Your task to perform on an android device: Open accessibility settings Image 0: 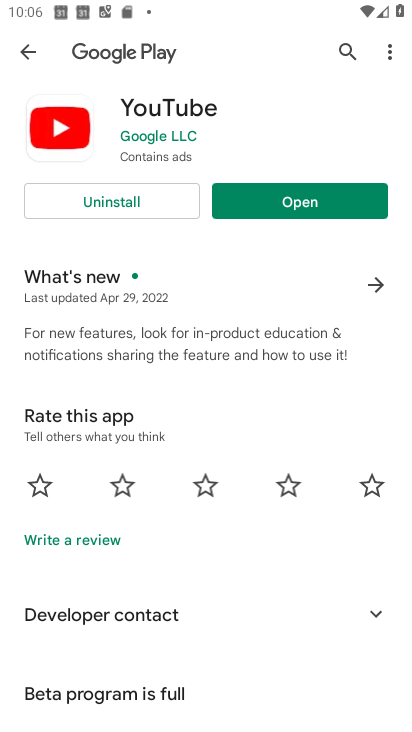
Step 0: press home button
Your task to perform on an android device: Open accessibility settings Image 1: 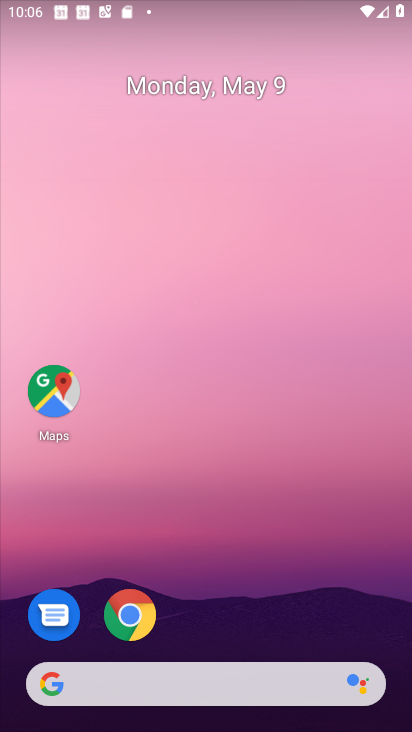
Step 1: drag from (279, 710) to (316, 193)
Your task to perform on an android device: Open accessibility settings Image 2: 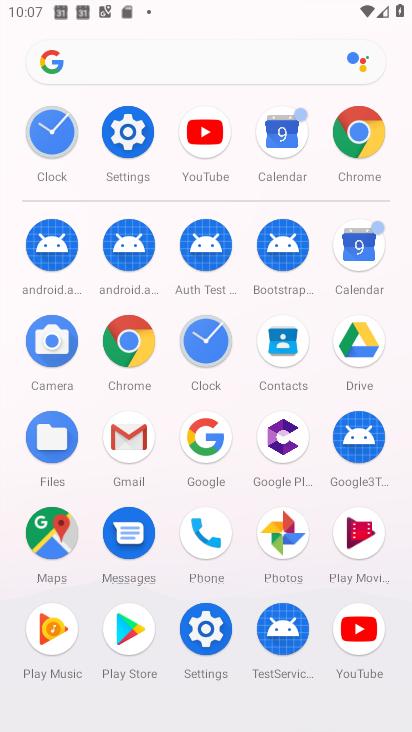
Step 2: click (118, 152)
Your task to perform on an android device: Open accessibility settings Image 3: 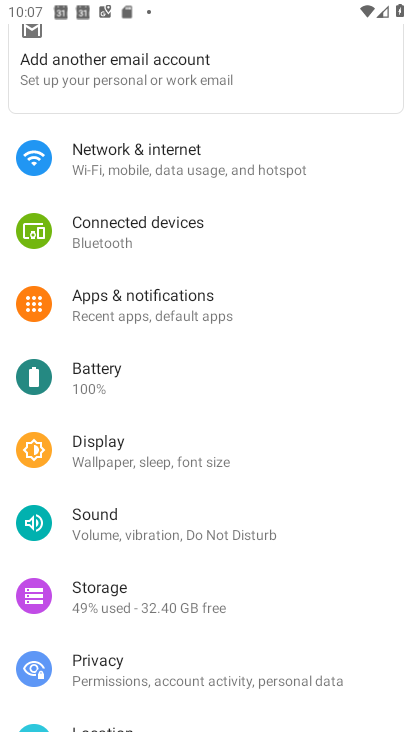
Step 3: drag from (126, 275) to (163, 499)
Your task to perform on an android device: Open accessibility settings Image 4: 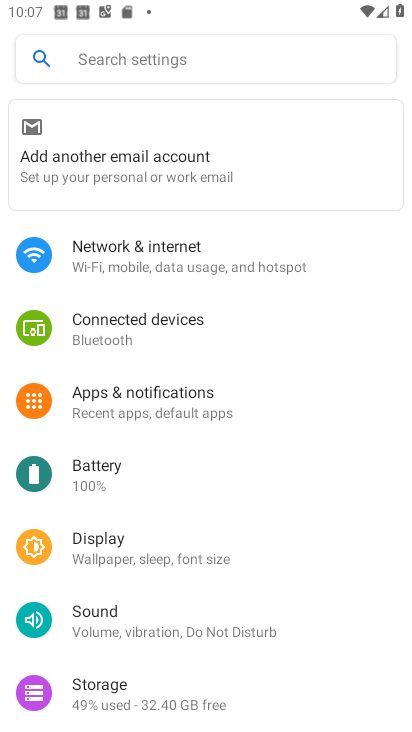
Step 4: click (153, 76)
Your task to perform on an android device: Open accessibility settings Image 5: 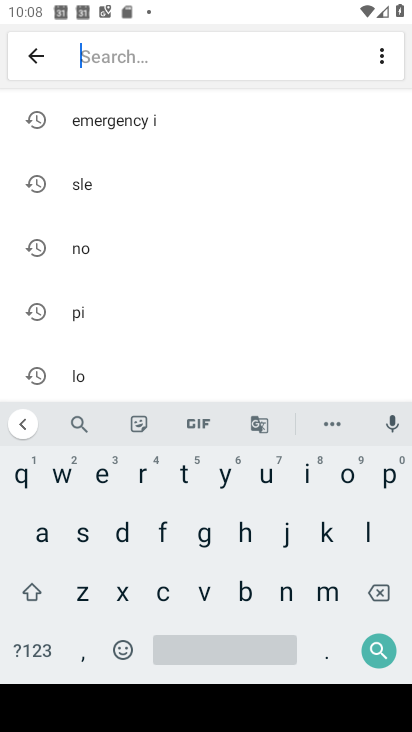
Step 5: click (34, 533)
Your task to perform on an android device: Open accessibility settings Image 6: 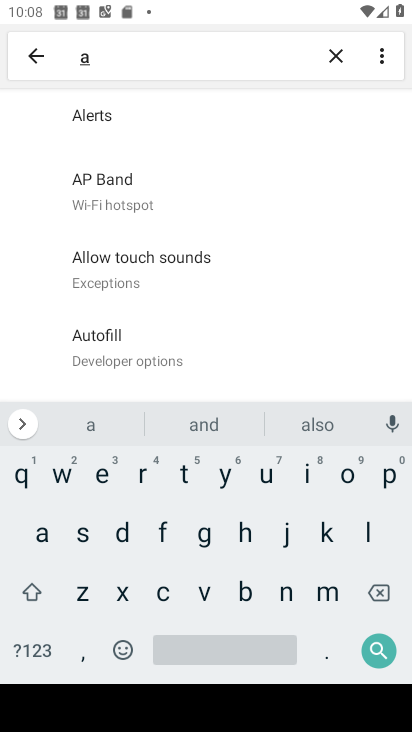
Step 6: click (168, 590)
Your task to perform on an android device: Open accessibility settings Image 7: 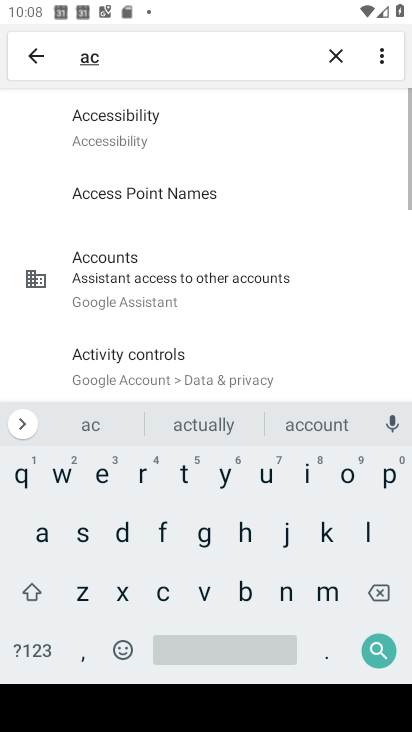
Step 7: click (168, 590)
Your task to perform on an android device: Open accessibility settings Image 8: 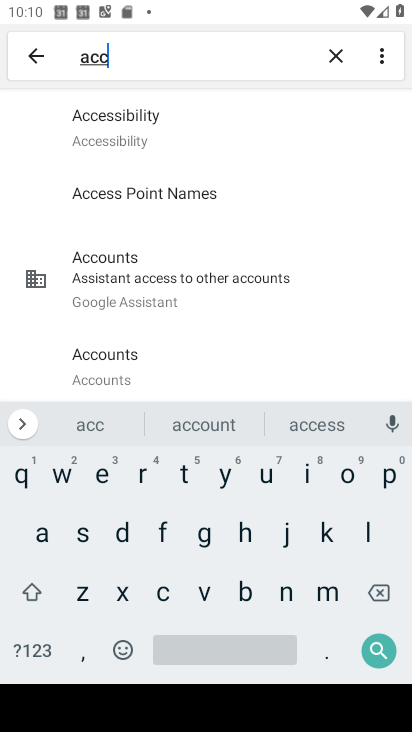
Step 8: click (167, 111)
Your task to perform on an android device: Open accessibility settings Image 9: 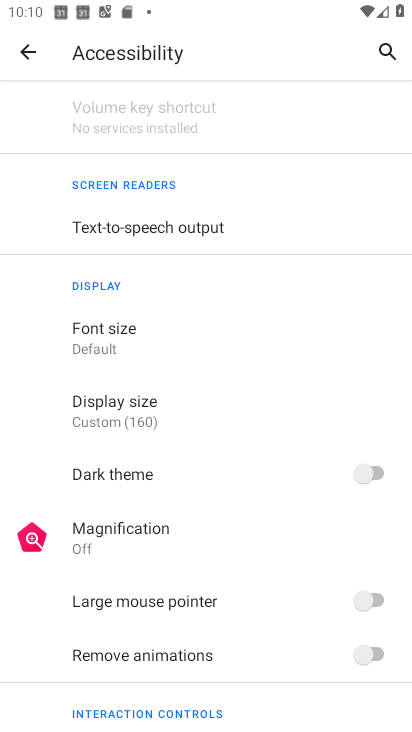
Step 9: task complete